Your task to perform on an android device: Open Google Chrome and open the bookmarks view Image 0: 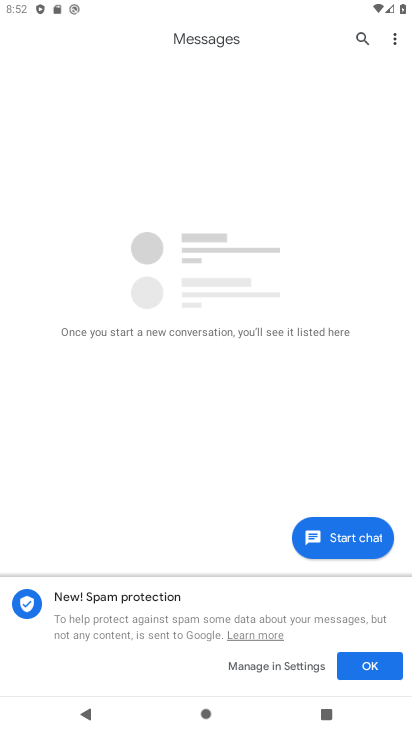
Step 0: press home button
Your task to perform on an android device: Open Google Chrome and open the bookmarks view Image 1: 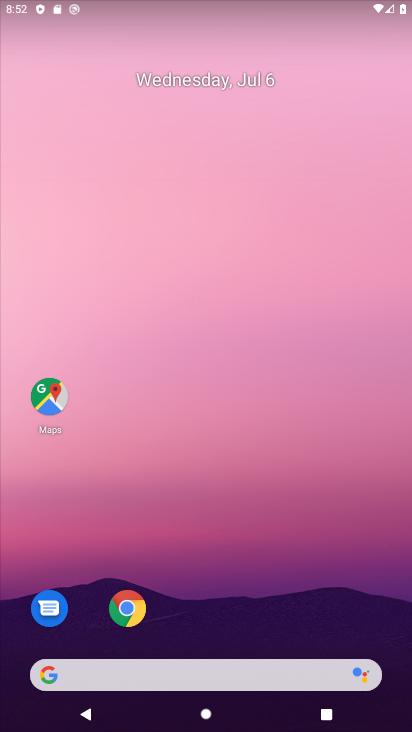
Step 1: drag from (277, 634) to (231, 207)
Your task to perform on an android device: Open Google Chrome and open the bookmarks view Image 2: 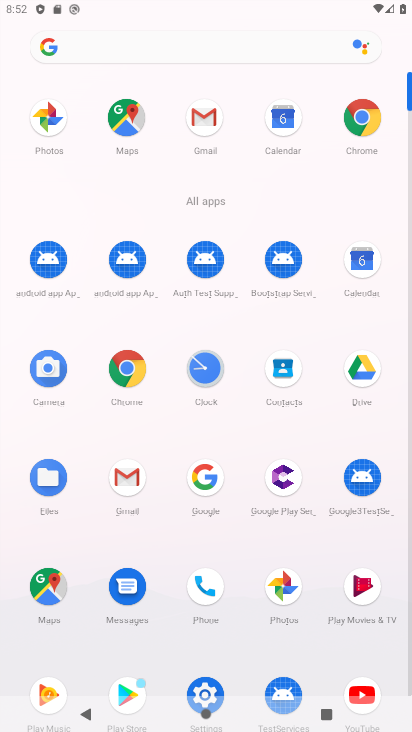
Step 2: click (362, 120)
Your task to perform on an android device: Open Google Chrome and open the bookmarks view Image 3: 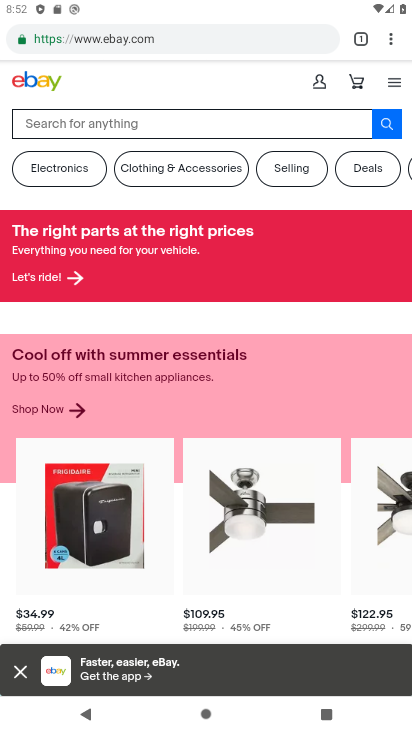
Step 3: click (395, 44)
Your task to perform on an android device: Open Google Chrome and open the bookmarks view Image 4: 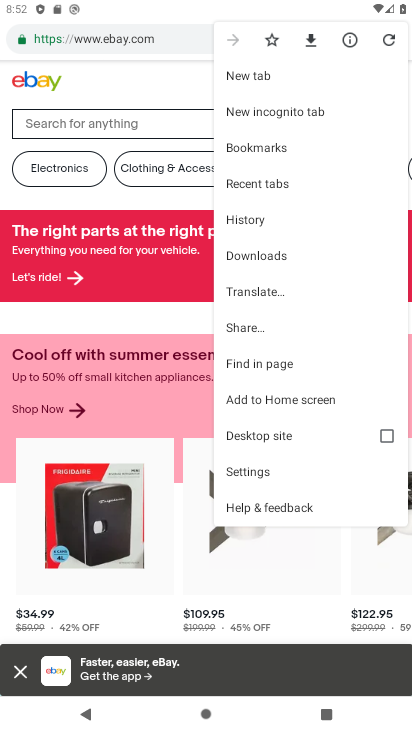
Step 4: click (352, 150)
Your task to perform on an android device: Open Google Chrome and open the bookmarks view Image 5: 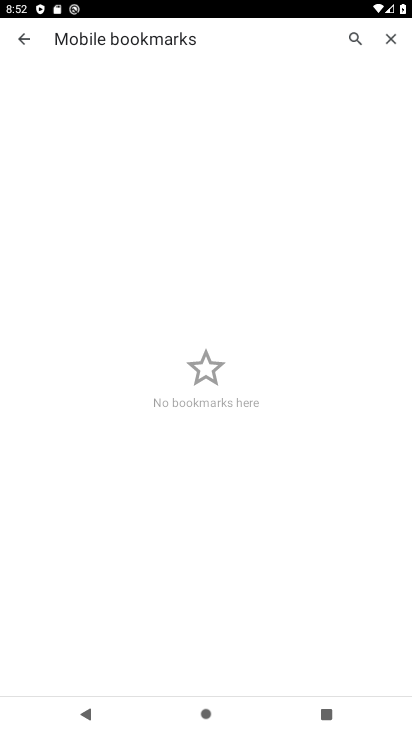
Step 5: task complete